Your task to perform on an android device: open the mobile data screen to see how much data has been used Image 0: 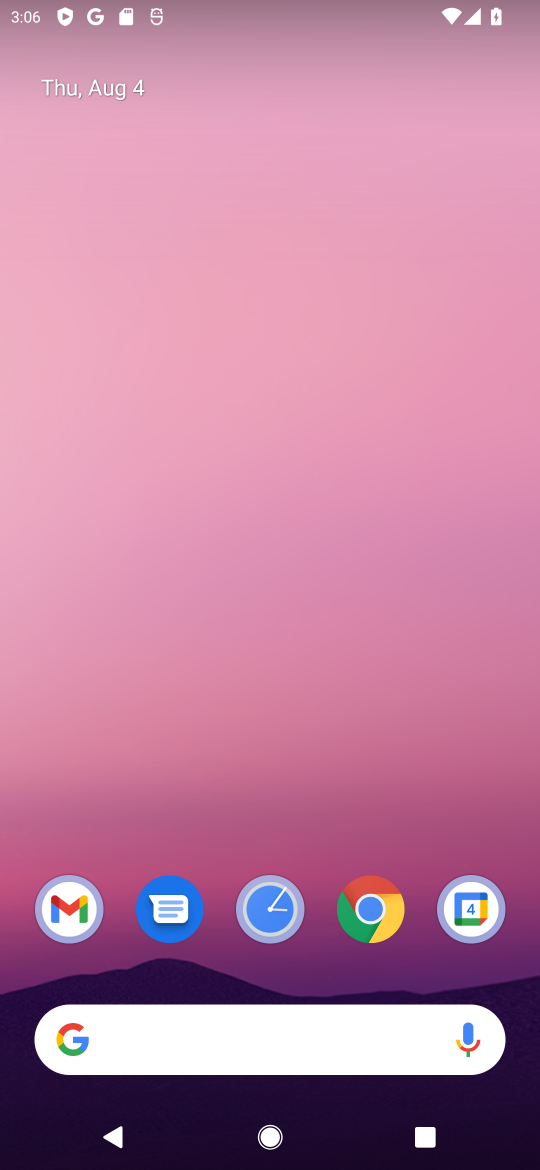
Step 0: drag from (200, 1041) to (422, 227)
Your task to perform on an android device: open the mobile data screen to see how much data has been used Image 1: 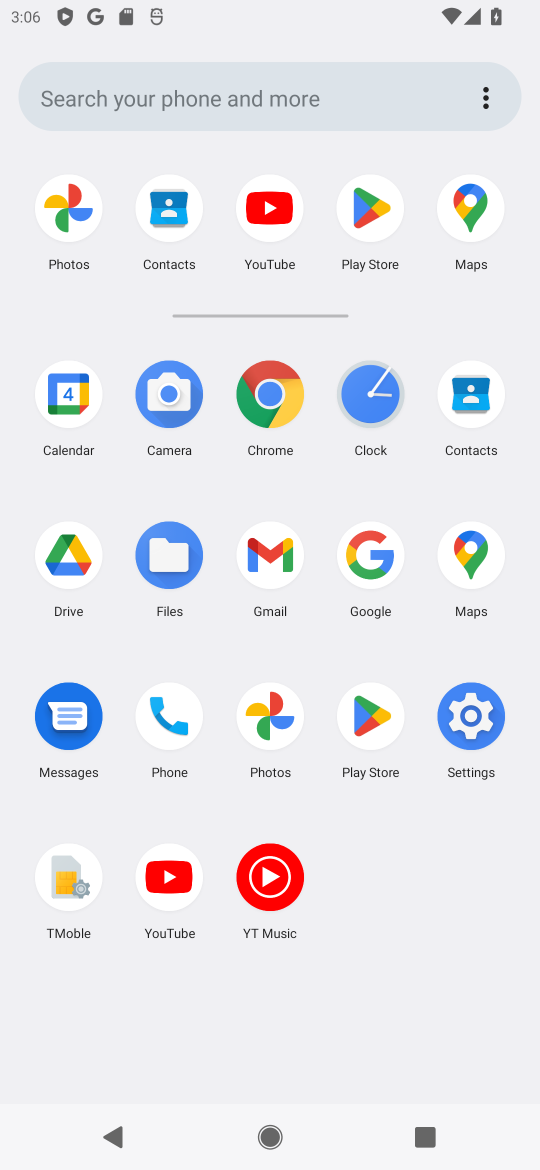
Step 1: click (479, 715)
Your task to perform on an android device: open the mobile data screen to see how much data has been used Image 2: 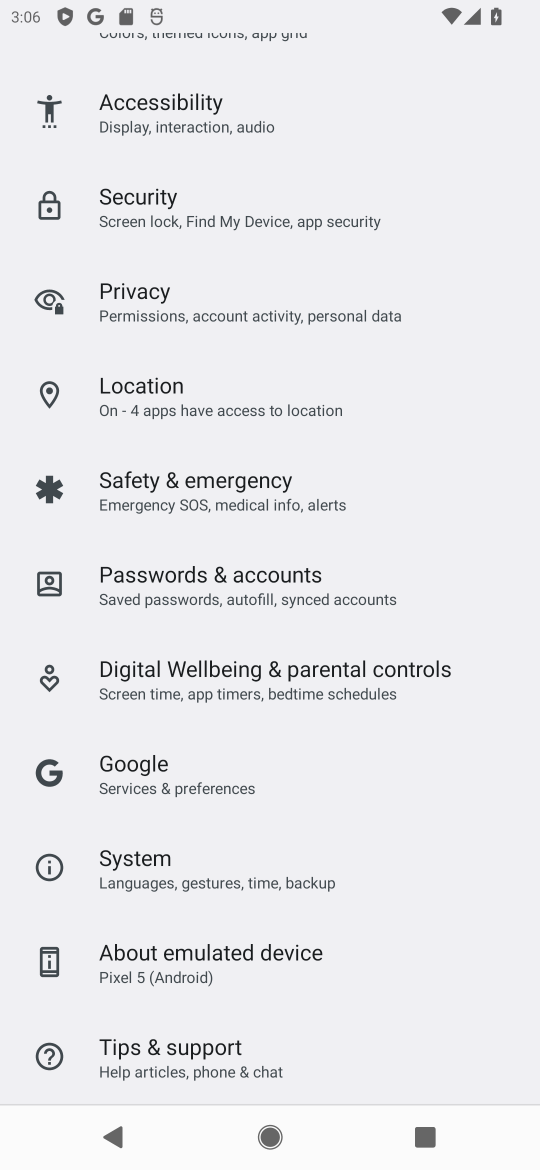
Step 2: drag from (459, 194) to (337, 1001)
Your task to perform on an android device: open the mobile data screen to see how much data has been used Image 3: 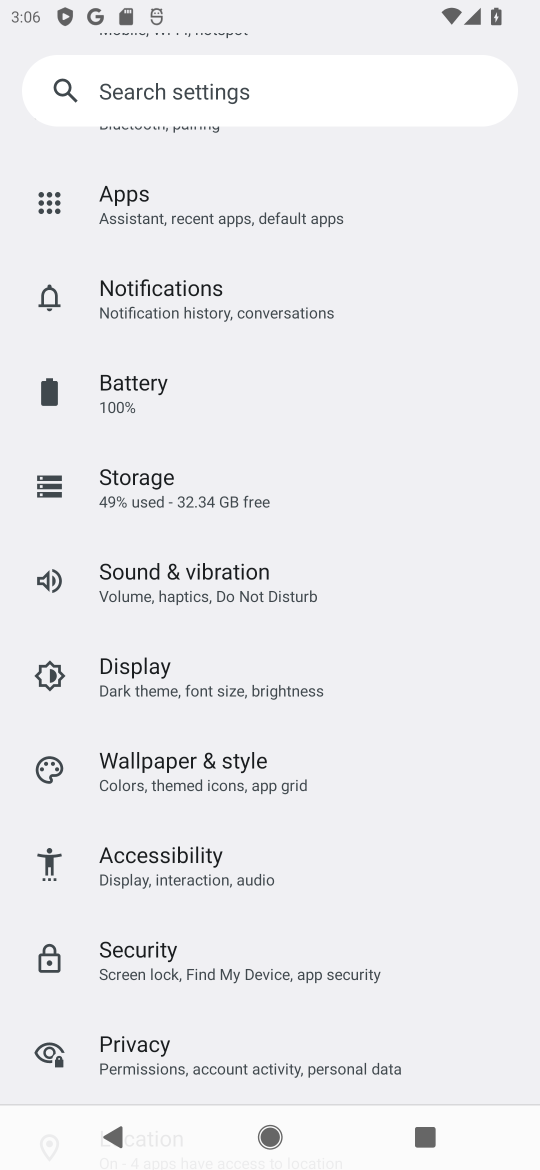
Step 3: drag from (364, 214) to (332, 799)
Your task to perform on an android device: open the mobile data screen to see how much data has been used Image 4: 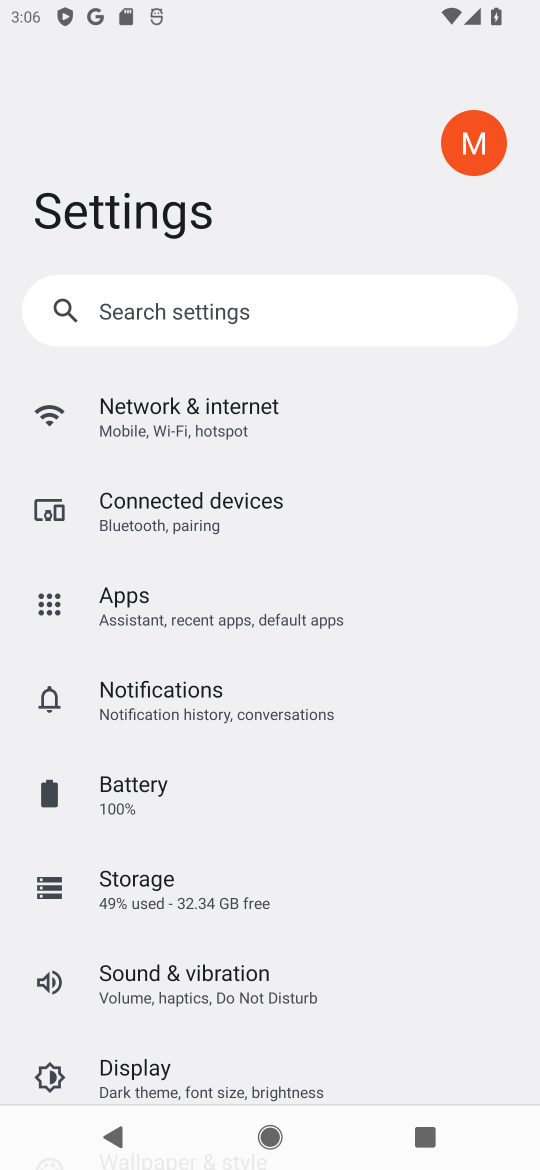
Step 4: click (181, 416)
Your task to perform on an android device: open the mobile data screen to see how much data has been used Image 5: 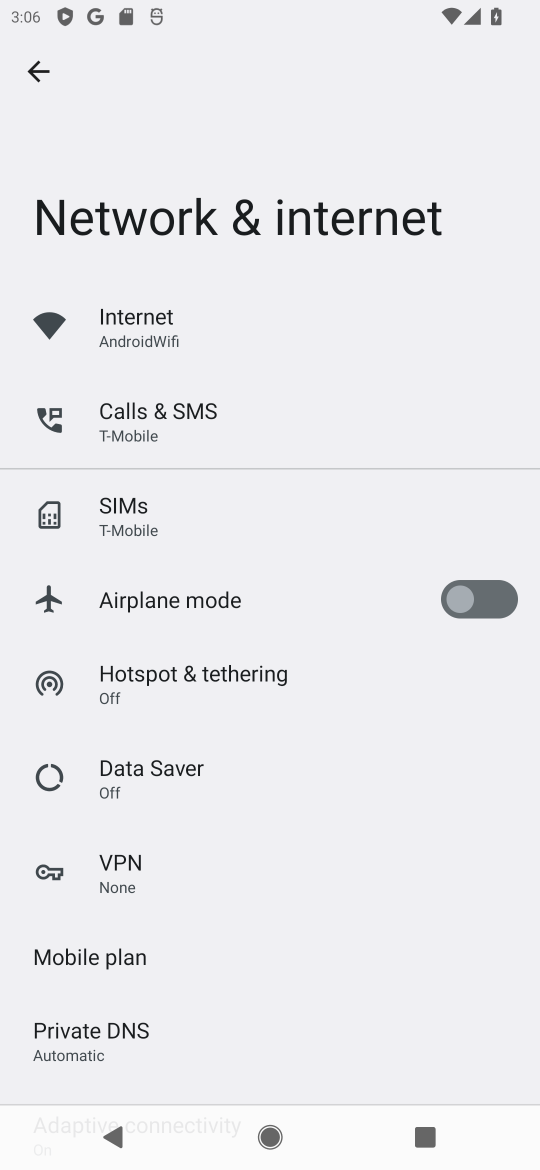
Step 5: click (134, 959)
Your task to perform on an android device: open the mobile data screen to see how much data has been used Image 6: 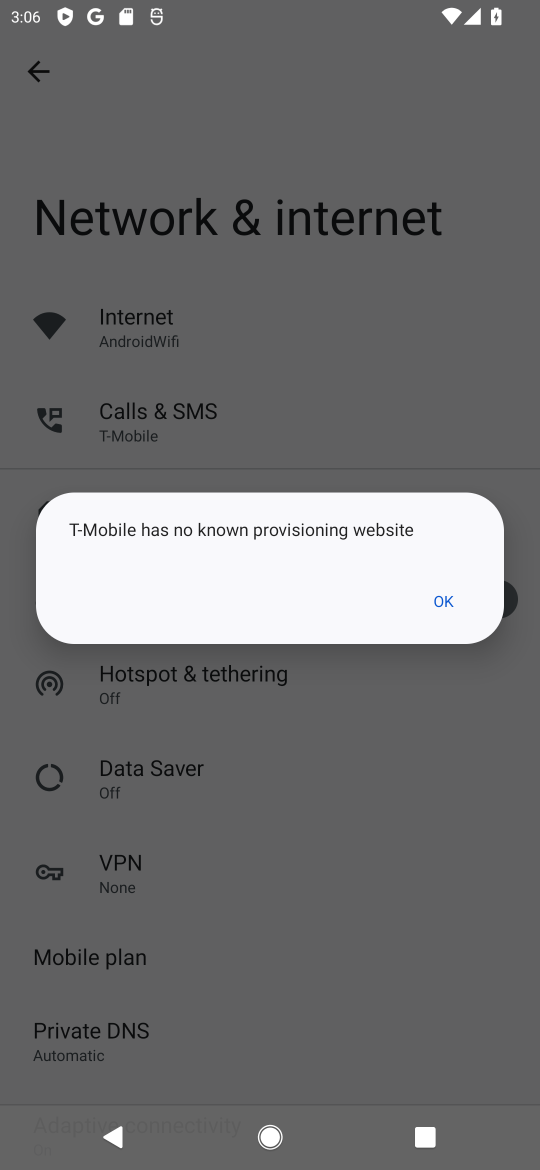
Step 6: click (435, 602)
Your task to perform on an android device: open the mobile data screen to see how much data has been used Image 7: 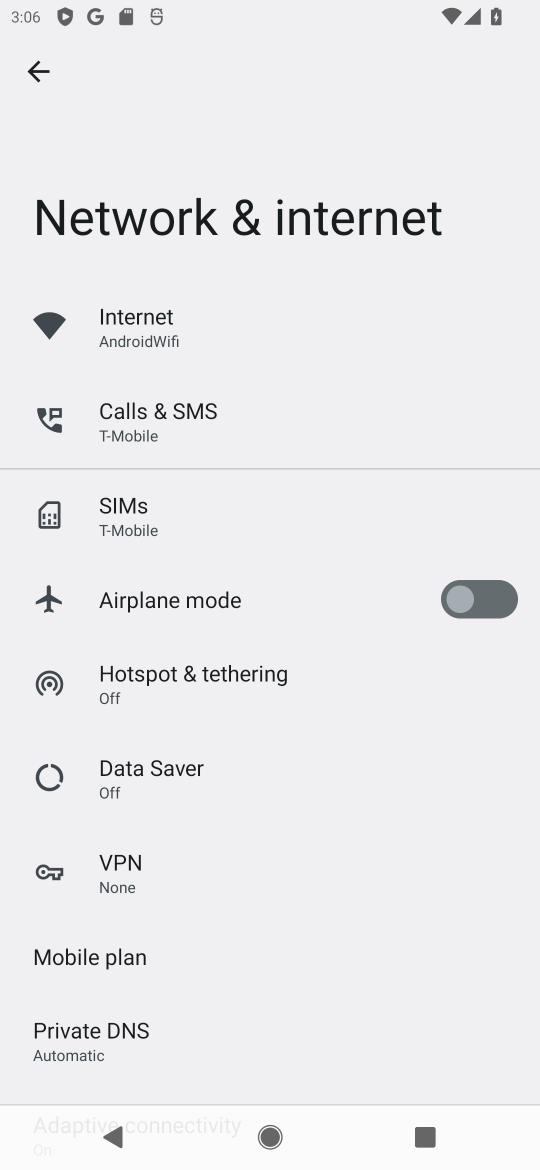
Step 7: click (170, 327)
Your task to perform on an android device: open the mobile data screen to see how much data has been used Image 8: 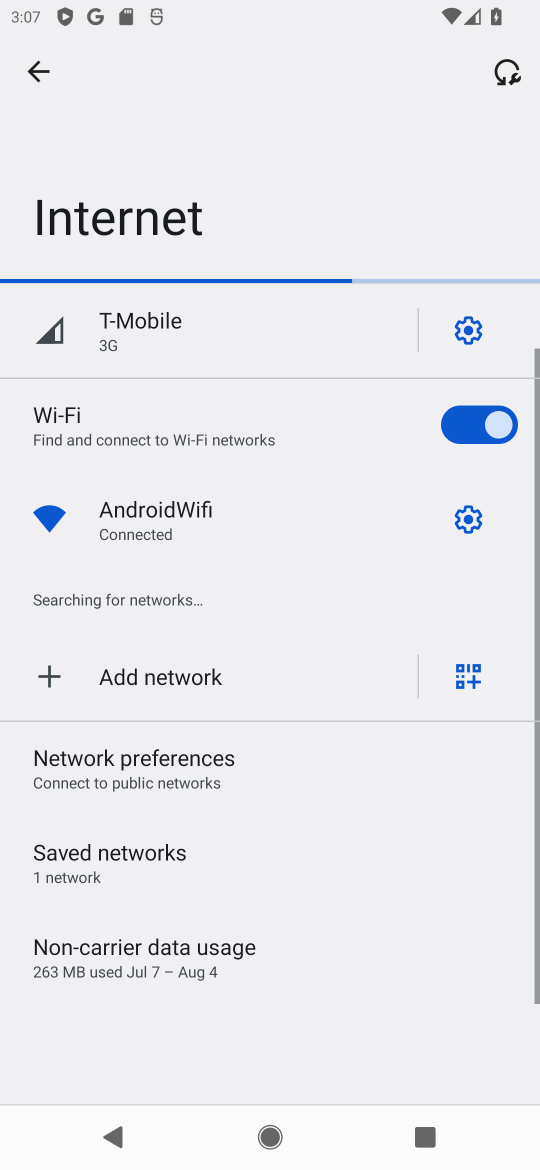
Step 8: drag from (322, 890) to (491, 236)
Your task to perform on an android device: open the mobile data screen to see how much data has been used Image 9: 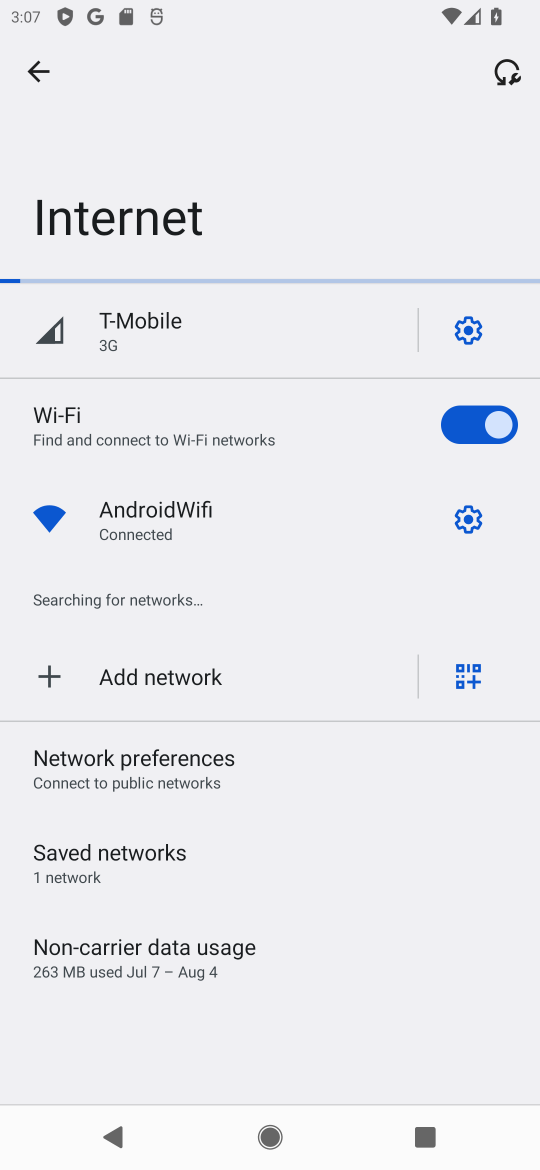
Step 9: click (470, 332)
Your task to perform on an android device: open the mobile data screen to see how much data has been used Image 10: 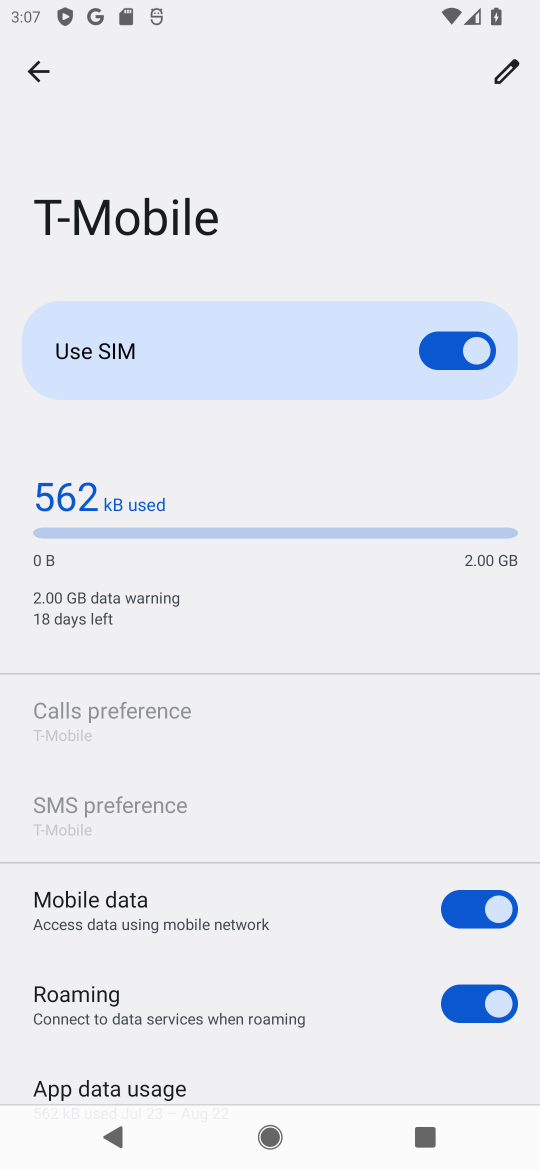
Step 10: task complete